Your task to perform on an android device: turn smart compose on in the gmail app Image 0: 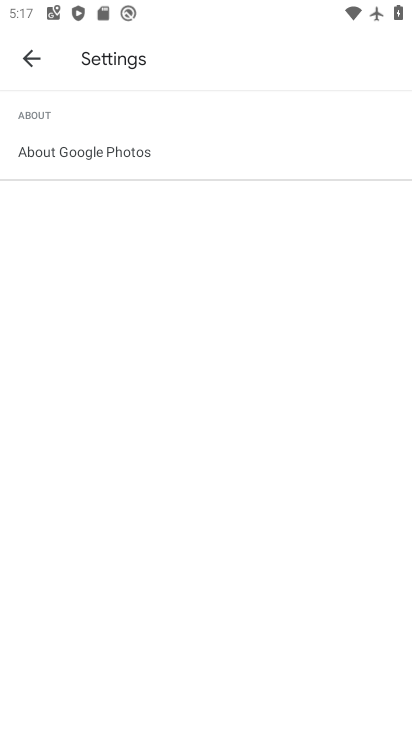
Step 0: press home button
Your task to perform on an android device: turn smart compose on in the gmail app Image 1: 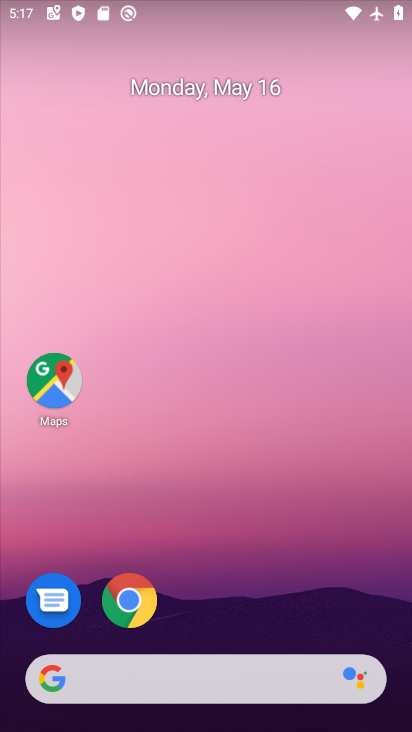
Step 1: drag from (203, 647) to (45, 219)
Your task to perform on an android device: turn smart compose on in the gmail app Image 2: 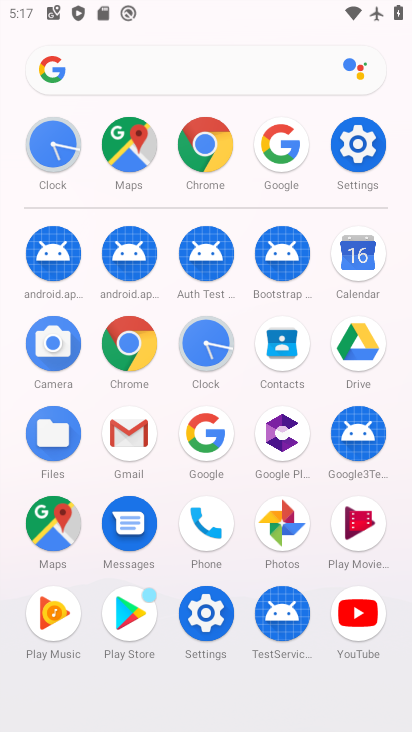
Step 2: click (135, 442)
Your task to perform on an android device: turn smart compose on in the gmail app Image 3: 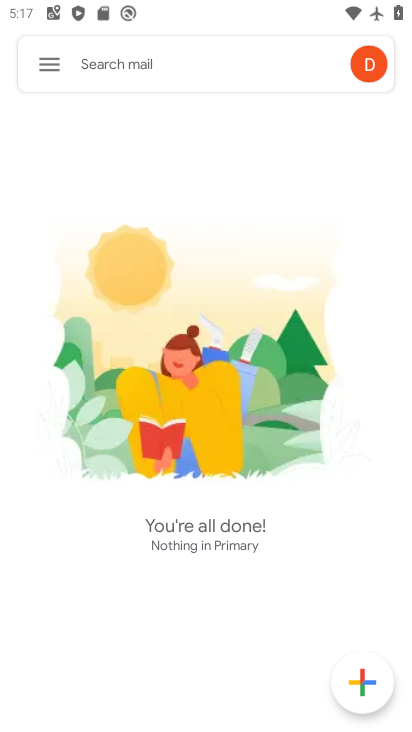
Step 3: click (54, 59)
Your task to perform on an android device: turn smart compose on in the gmail app Image 4: 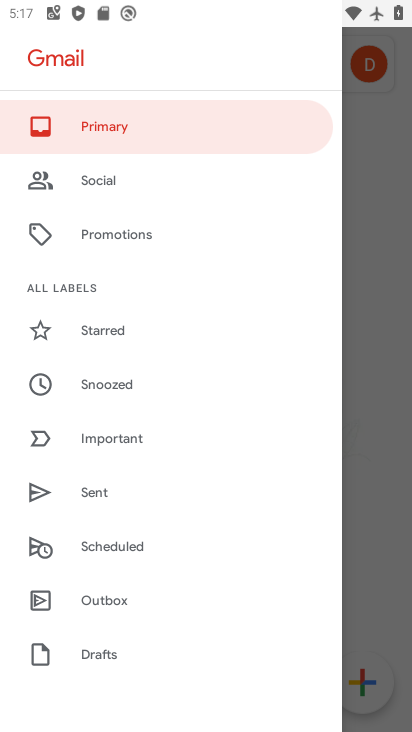
Step 4: drag from (75, 635) to (99, 45)
Your task to perform on an android device: turn smart compose on in the gmail app Image 5: 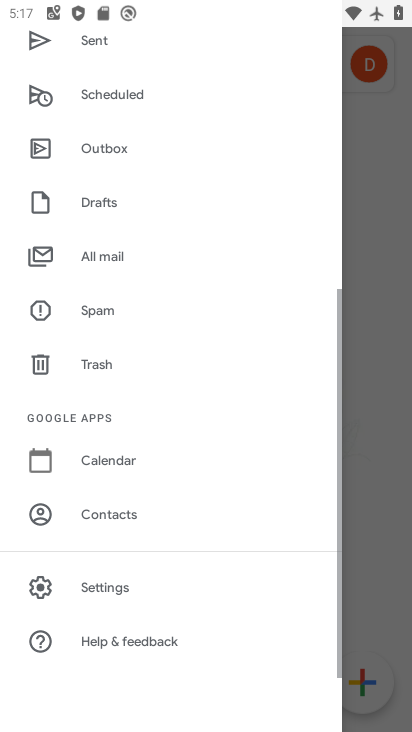
Step 5: click (96, 595)
Your task to perform on an android device: turn smart compose on in the gmail app Image 6: 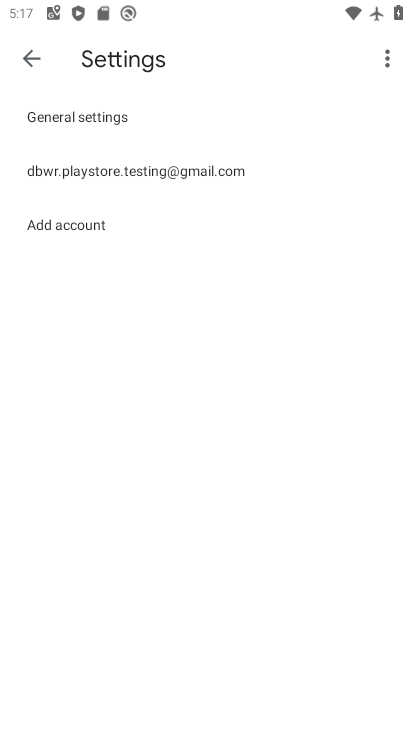
Step 6: click (55, 164)
Your task to perform on an android device: turn smart compose on in the gmail app Image 7: 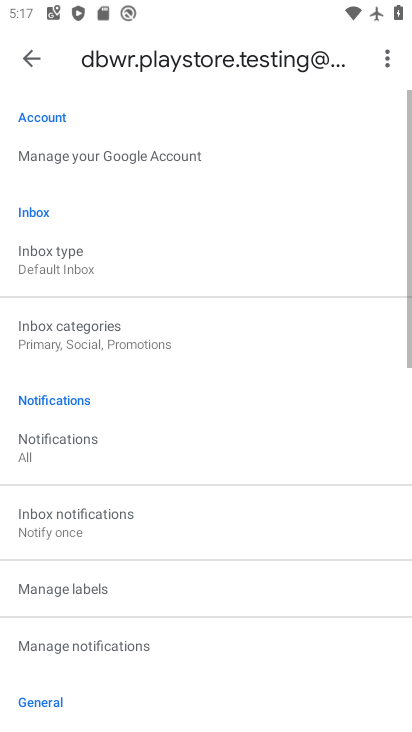
Step 7: task complete